Your task to perform on an android device: Open notification settings Image 0: 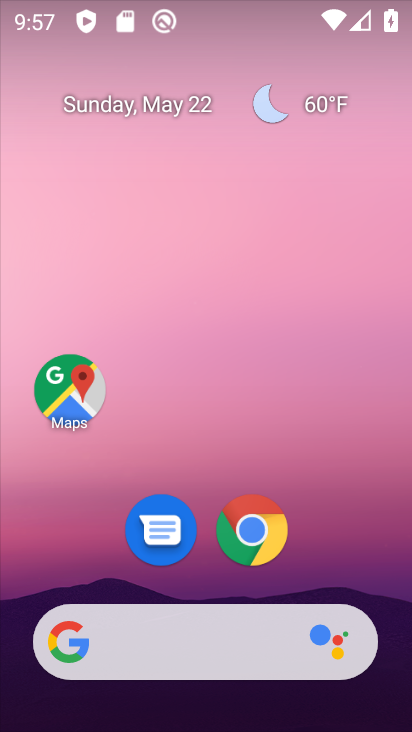
Step 0: drag from (303, 574) to (349, 8)
Your task to perform on an android device: Open notification settings Image 1: 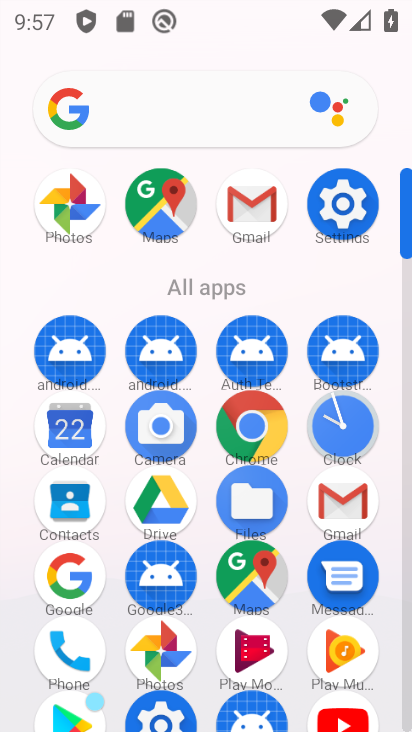
Step 1: click (331, 214)
Your task to perform on an android device: Open notification settings Image 2: 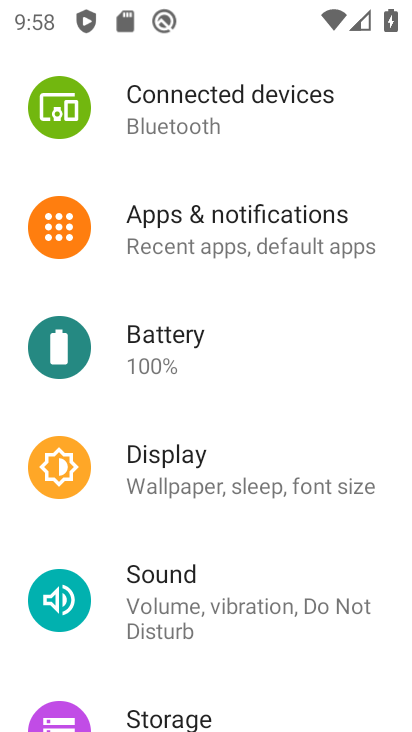
Step 2: drag from (282, 138) to (270, 216)
Your task to perform on an android device: Open notification settings Image 3: 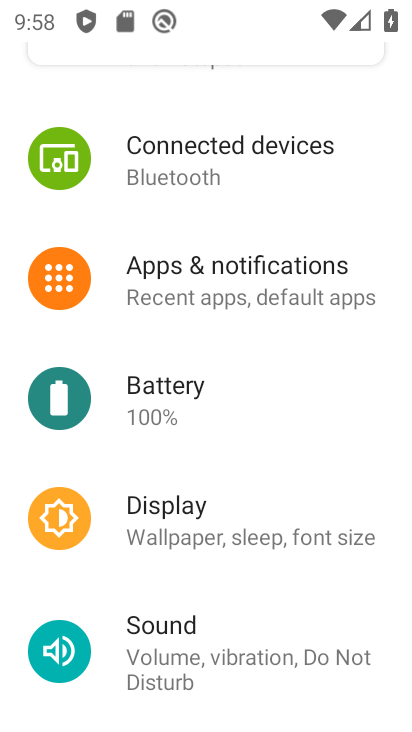
Step 3: click (258, 277)
Your task to perform on an android device: Open notification settings Image 4: 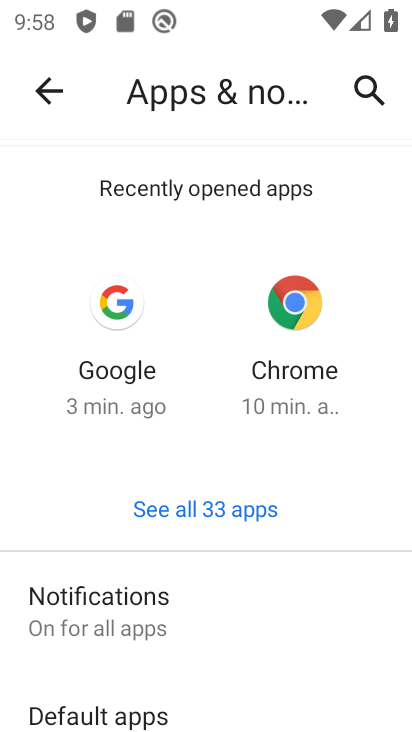
Step 4: click (189, 619)
Your task to perform on an android device: Open notification settings Image 5: 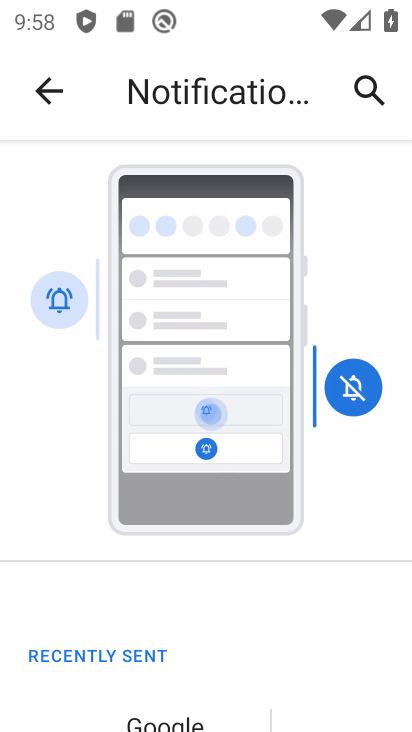
Step 5: task complete